Your task to perform on an android device: Open battery settings Image 0: 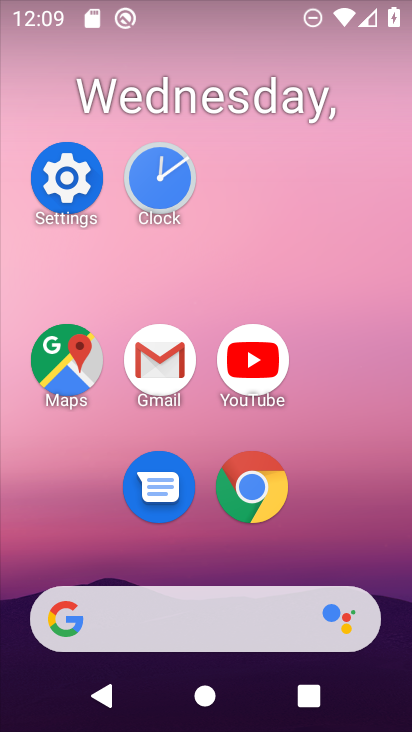
Step 0: click (53, 171)
Your task to perform on an android device: Open battery settings Image 1: 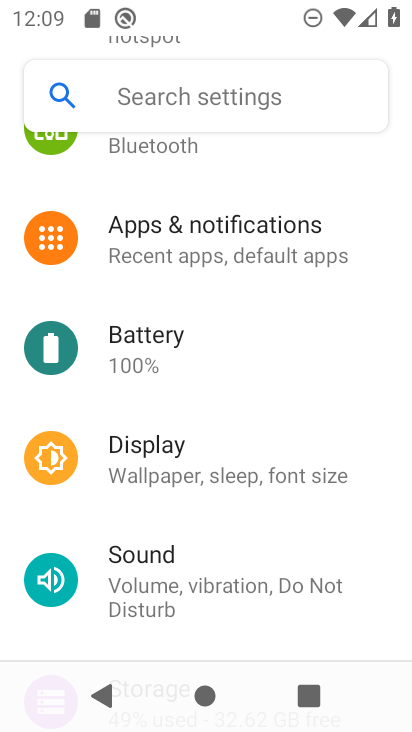
Step 1: click (203, 348)
Your task to perform on an android device: Open battery settings Image 2: 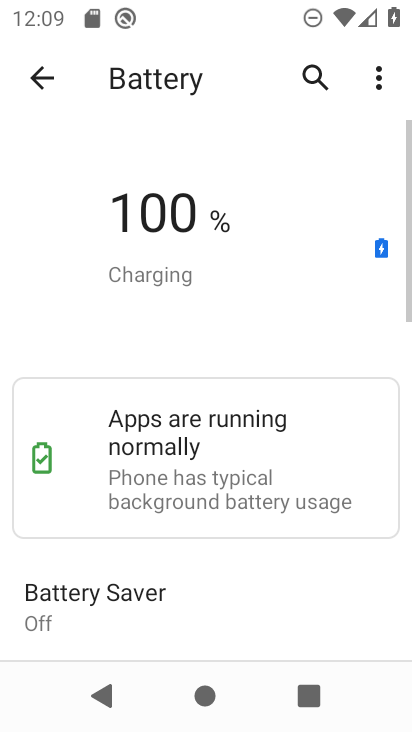
Step 2: task complete